Your task to perform on an android device: Check the weather Image 0: 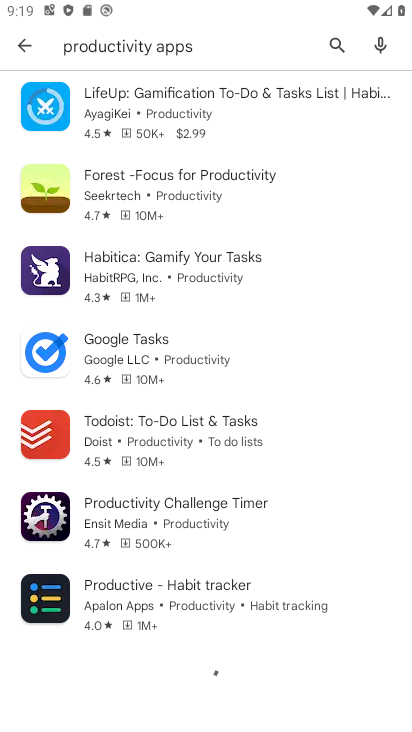
Step 0: press home button
Your task to perform on an android device: Check the weather Image 1: 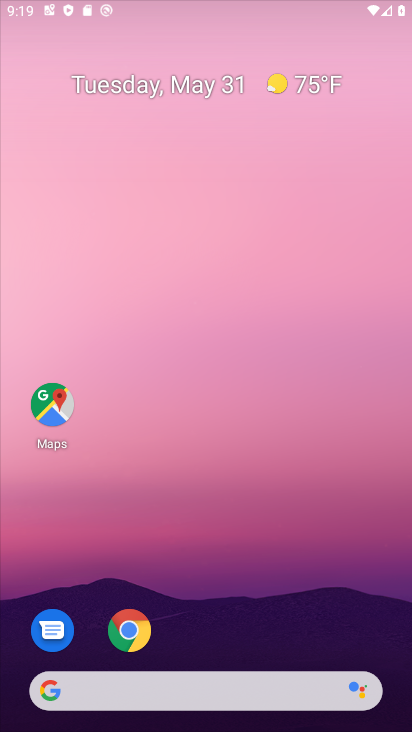
Step 1: drag from (223, 661) to (261, 189)
Your task to perform on an android device: Check the weather Image 2: 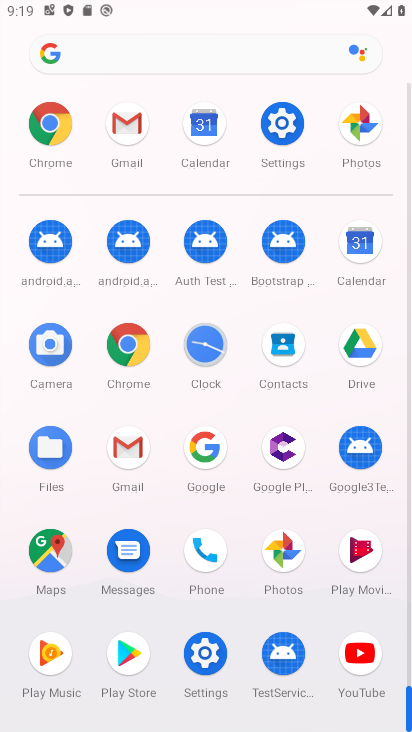
Step 2: click (206, 472)
Your task to perform on an android device: Check the weather Image 3: 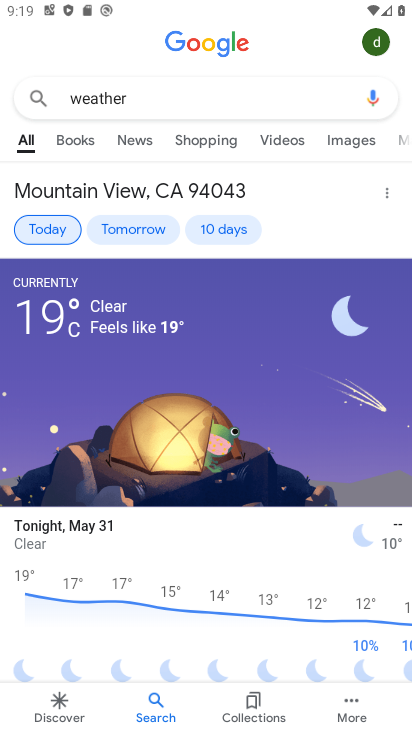
Step 3: task complete